Your task to perform on an android device: check out phone information Image 0: 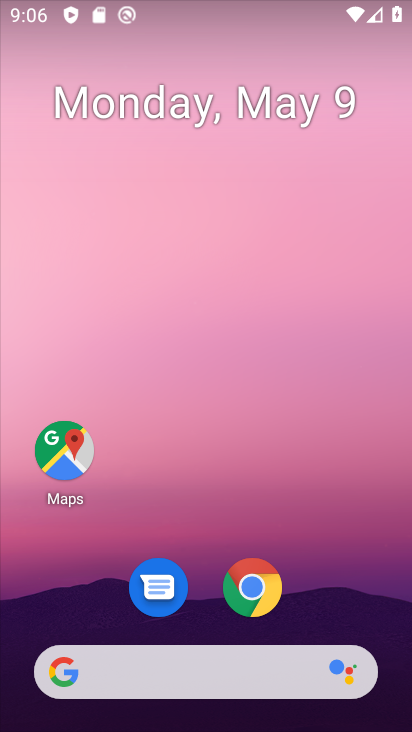
Step 0: drag from (209, 530) to (195, 40)
Your task to perform on an android device: check out phone information Image 1: 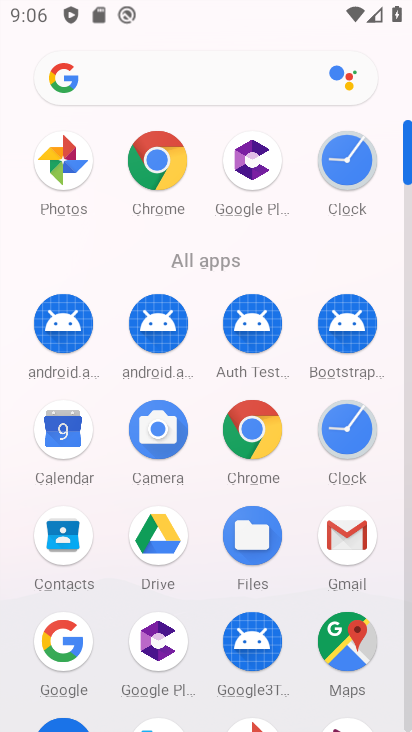
Step 1: drag from (211, 671) to (249, 336)
Your task to perform on an android device: check out phone information Image 2: 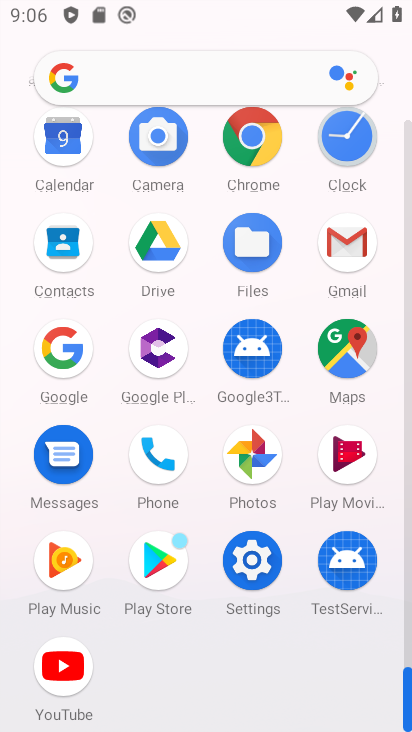
Step 2: click (232, 560)
Your task to perform on an android device: check out phone information Image 3: 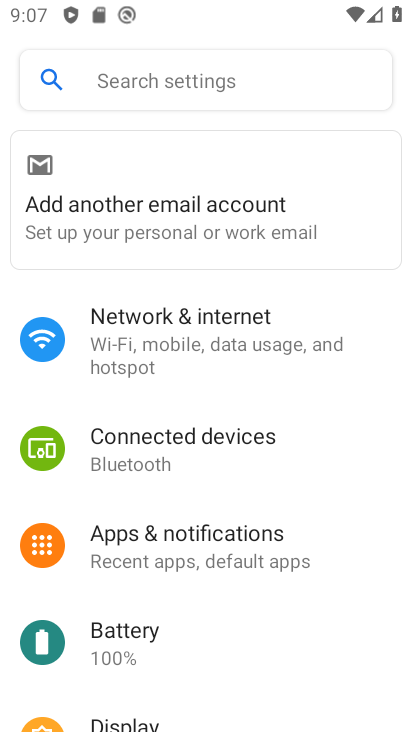
Step 3: drag from (162, 676) to (222, 88)
Your task to perform on an android device: check out phone information Image 4: 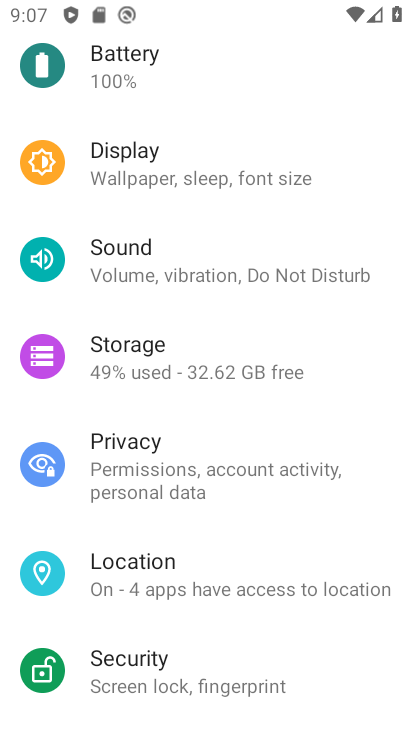
Step 4: drag from (212, 669) to (223, 175)
Your task to perform on an android device: check out phone information Image 5: 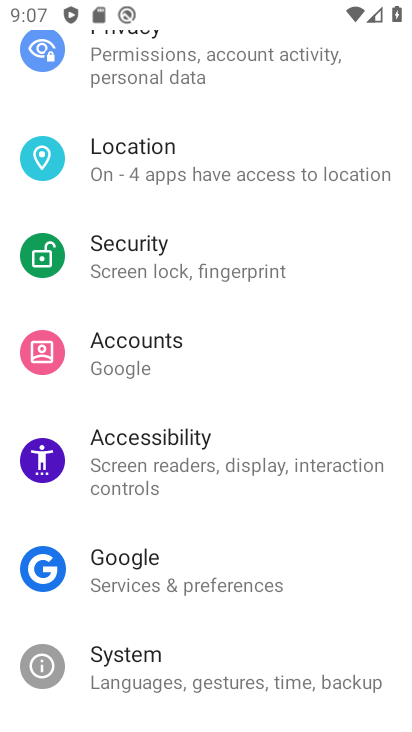
Step 5: drag from (185, 661) to (222, 163)
Your task to perform on an android device: check out phone information Image 6: 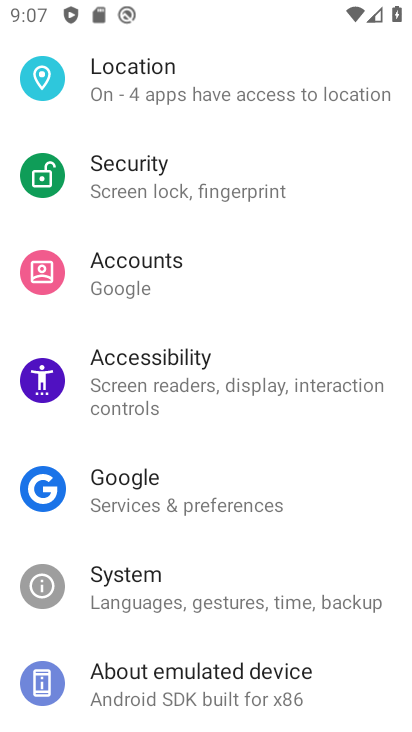
Step 6: click (292, 672)
Your task to perform on an android device: check out phone information Image 7: 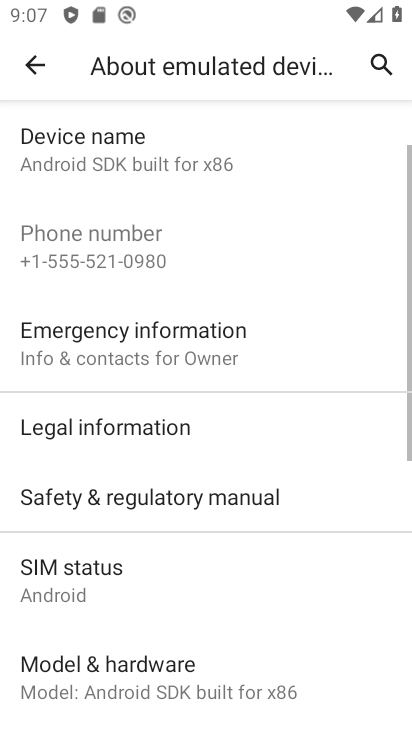
Step 7: drag from (277, 661) to (284, 318)
Your task to perform on an android device: check out phone information Image 8: 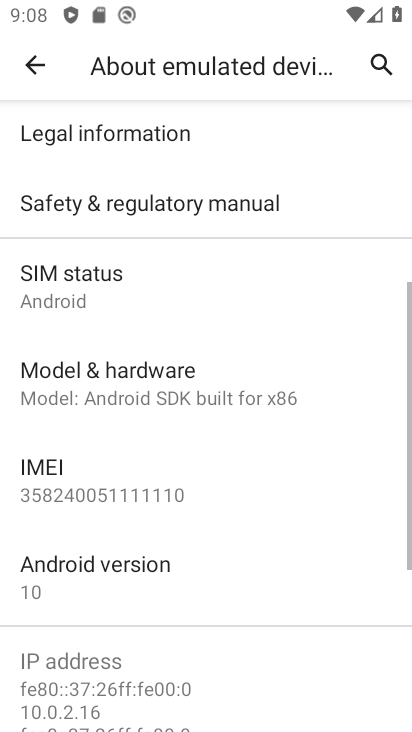
Step 8: drag from (96, 695) to (180, 92)
Your task to perform on an android device: check out phone information Image 9: 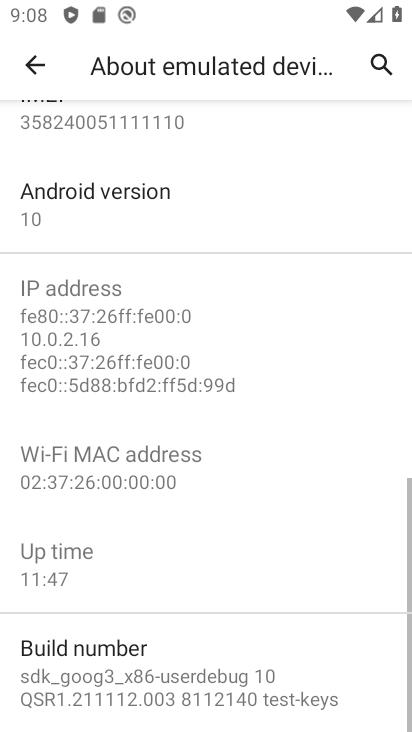
Step 9: click (308, 468)
Your task to perform on an android device: check out phone information Image 10: 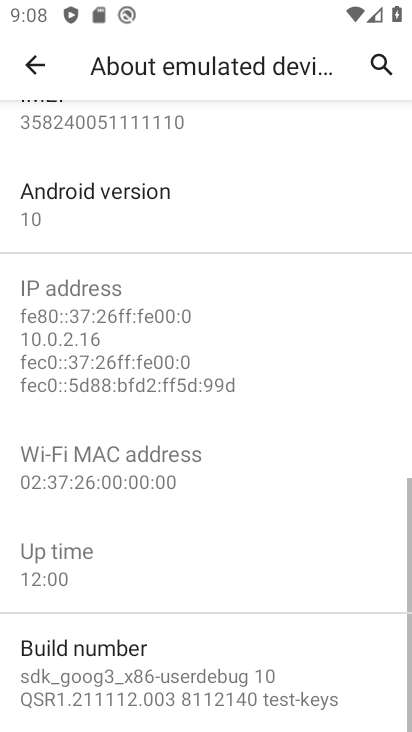
Step 10: task complete